Your task to perform on an android device: What is the recent news? Image 0: 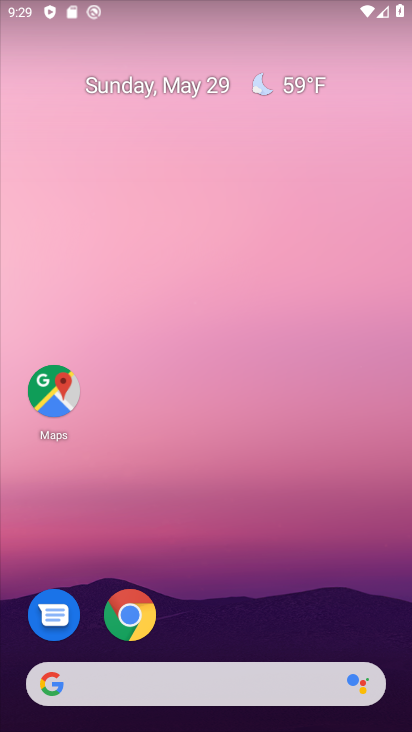
Step 0: drag from (223, 531) to (234, 134)
Your task to perform on an android device: What is the recent news? Image 1: 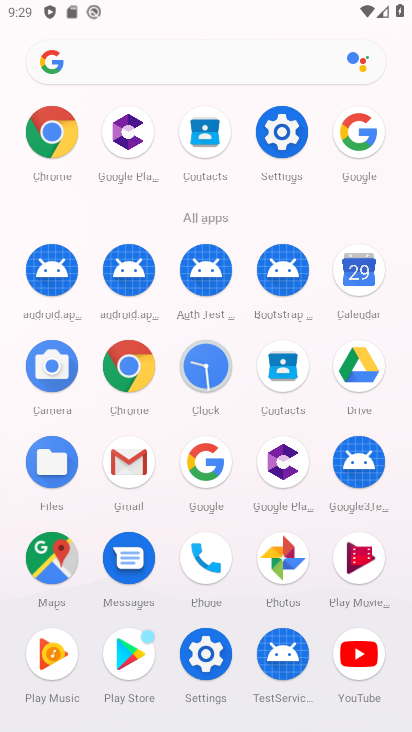
Step 1: click (198, 460)
Your task to perform on an android device: What is the recent news? Image 2: 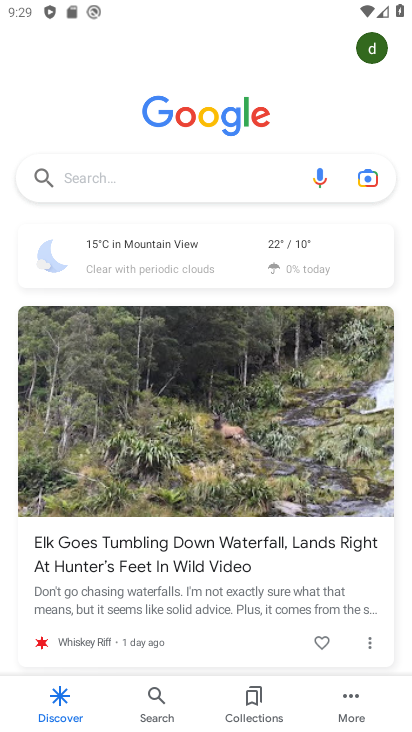
Step 2: click (148, 169)
Your task to perform on an android device: What is the recent news? Image 3: 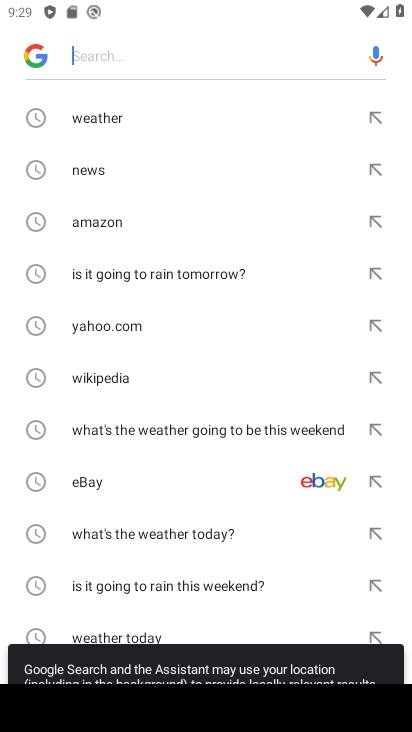
Step 3: drag from (168, 446) to (174, 54)
Your task to perform on an android device: What is the recent news? Image 4: 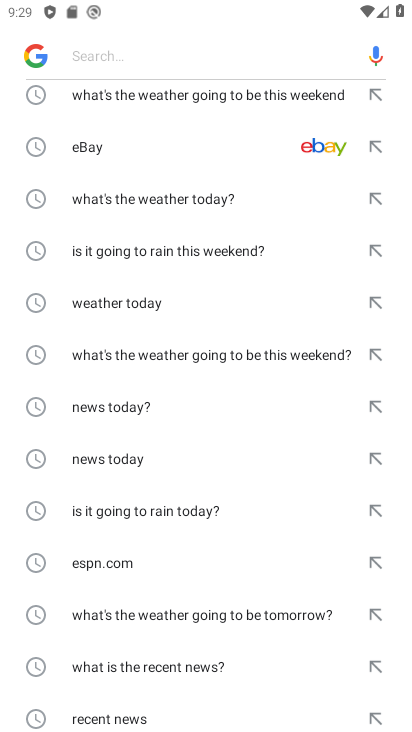
Step 4: click (151, 664)
Your task to perform on an android device: What is the recent news? Image 5: 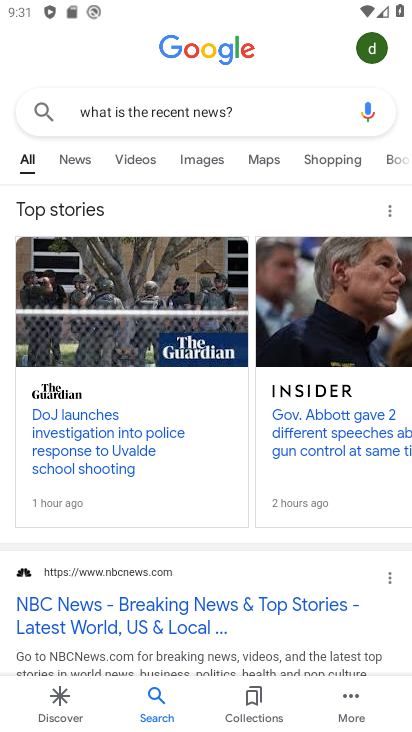
Step 5: task complete